Your task to perform on an android device: Search for seafood restaurants on Google Maps Image 0: 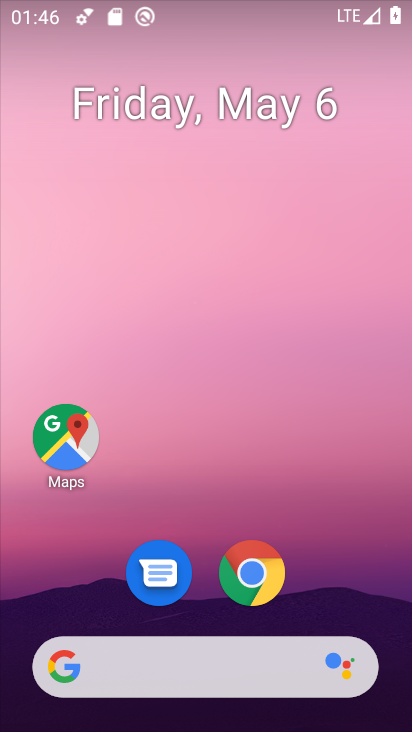
Step 0: drag from (324, 546) to (326, 300)
Your task to perform on an android device: Search for seafood restaurants on Google Maps Image 1: 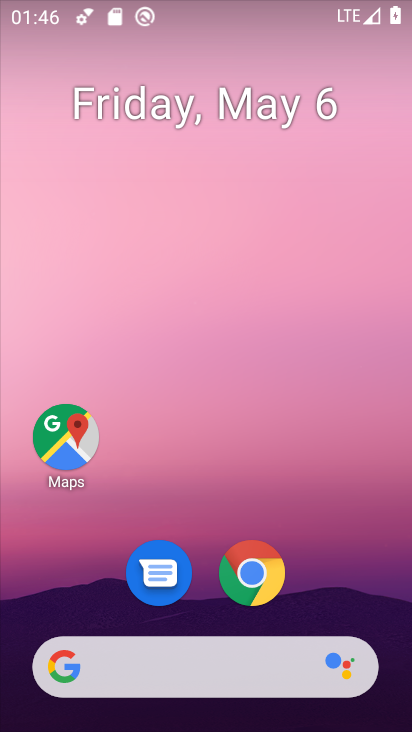
Step 1: drag from (337, 591) to (353, 251)
Your task to perform on an android device: Search for seafood restaurants on Google Maps Image 2: 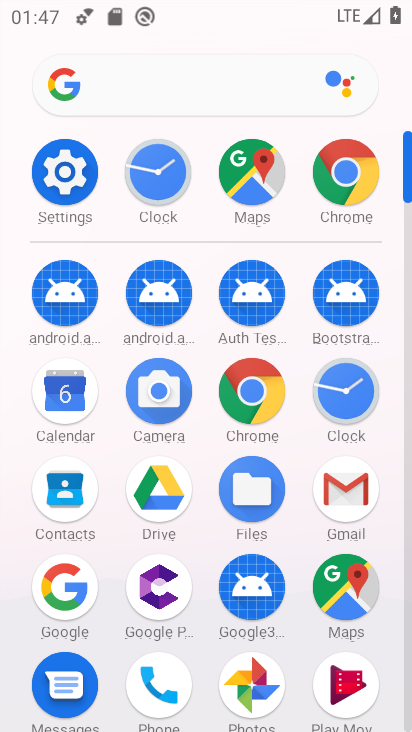
Step 2: click (348, 577)
Your task to perform on an android device: Search for seafood restaurants on Google Maps Image 3: 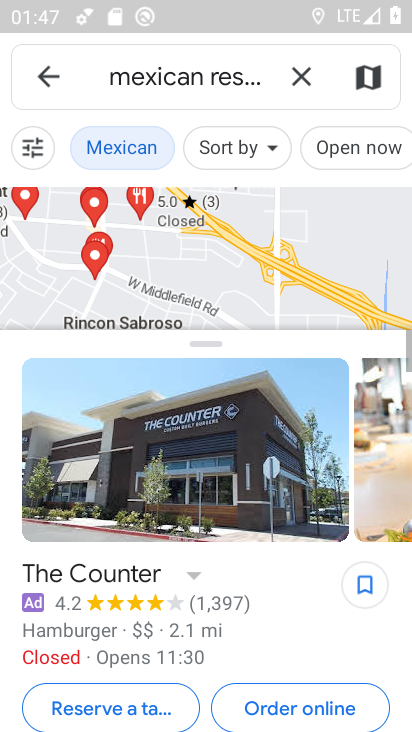
Step 3: click (302, 76)
Your task to perform on an android device: Search for seafood restaurants on Google Maps Image 4: 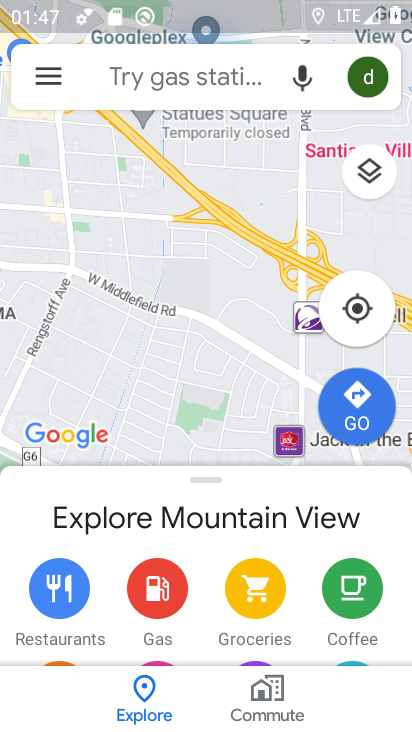
Step 4: click (56, 569)
Your task to perform on an android device: Search for seafood restaurants on Google Maps Image 5: 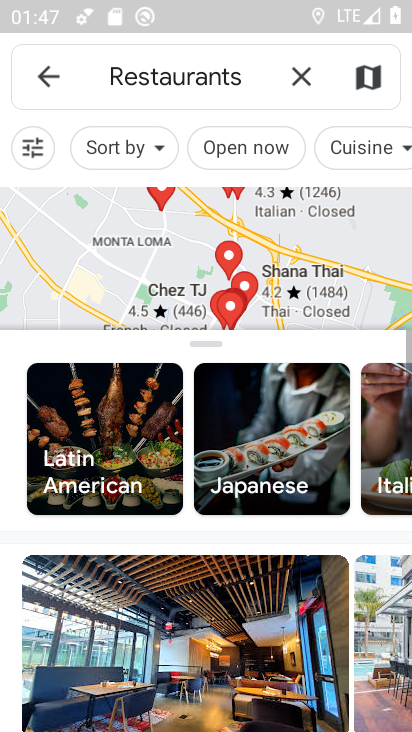
Step 5: press back button
Your task to perform on an android device: Search for seafood restaurants on Google Maps Image 6: 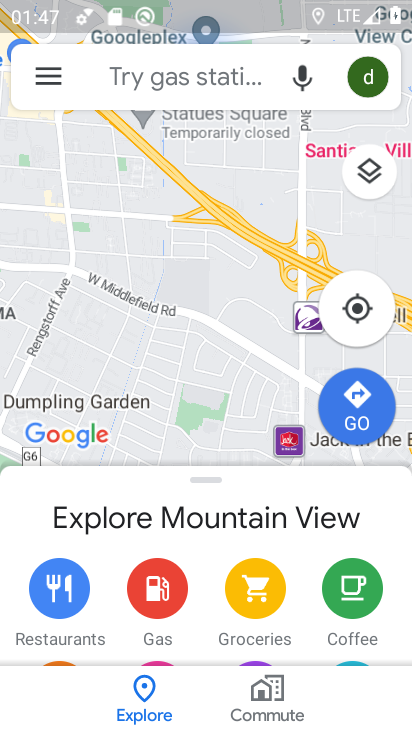
Step 6: click (178, 81)
Your task to perform on an android device: Search for seafood restaurants on Google Maps Image 7: 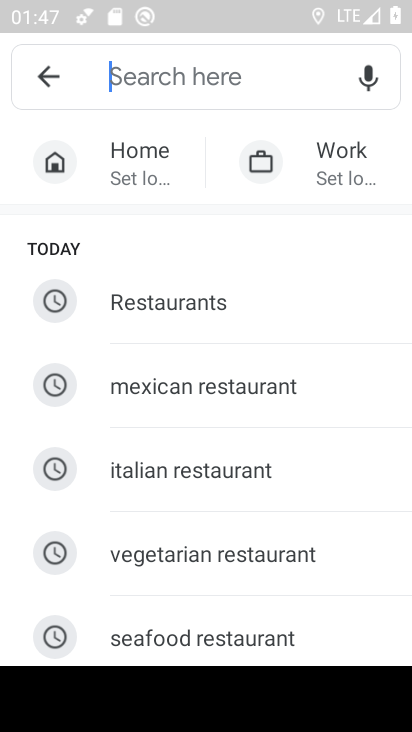
Step 7: type " seafood restaurants "
Your task to perform on an android device: Search for seafood restaurants on Google Maps Image 8: 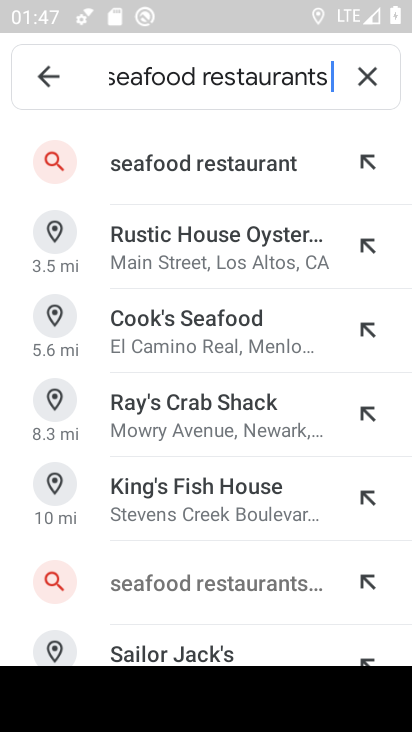
Step 8: click (224, 173)
Your task to perform on an android device: Search for seafood restaurants on Google Maps Image 9: 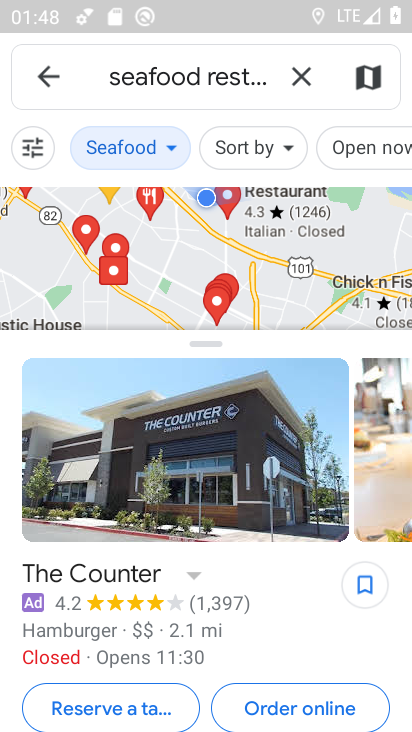
Step 9: task complete